Your task to perform on an android device: turn on showing notifications on the lock screen Image 0: 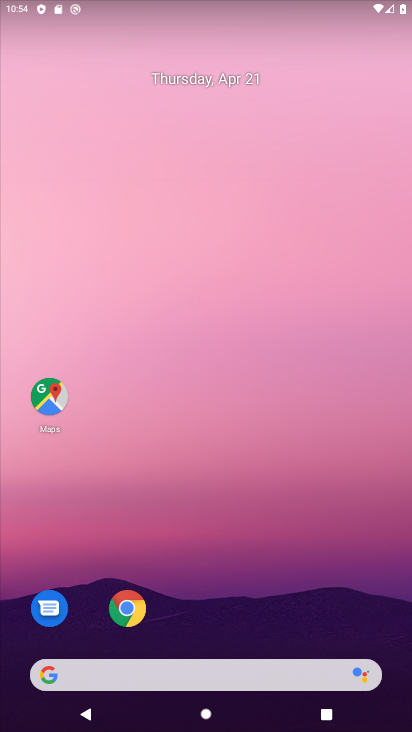
Step 0: drag from (260, 607) to (275, 239)
Your task to perform on an android device: turn on showing notifications on the lock screen Image 1: 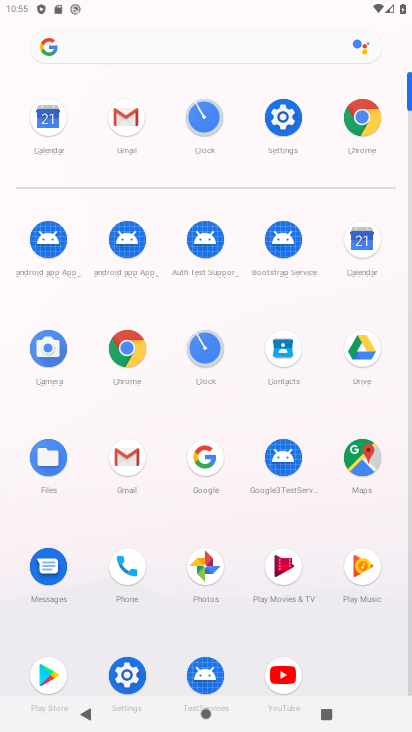
Step 1: click (295, 114)
Your task to perform on an android device: turn on showing notifications on the lock screen Image 2: 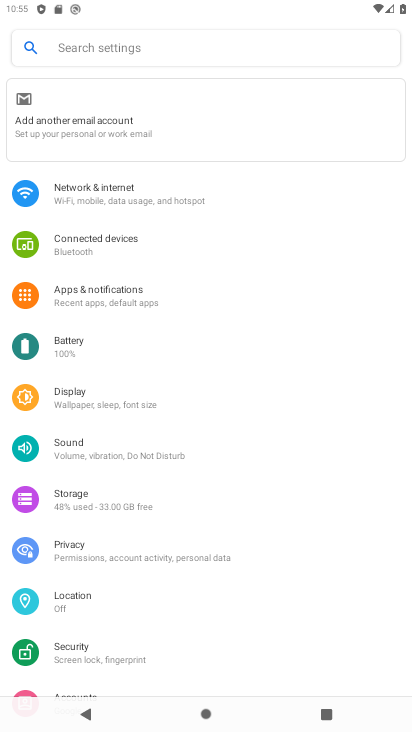
Step 2: click (99, 298)
Your task to perform on an android device: turn on showing notifications on the lock screen Image 3: 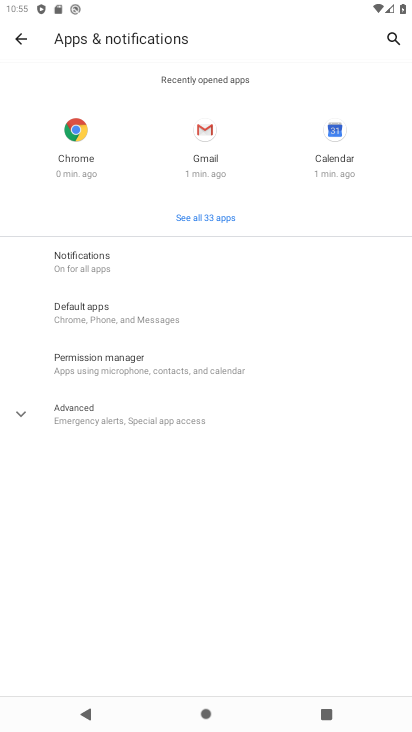
Step 3: click (82, 265)
Your task to perform on an android device: turn on showing notifications on the lock screen Image 4: 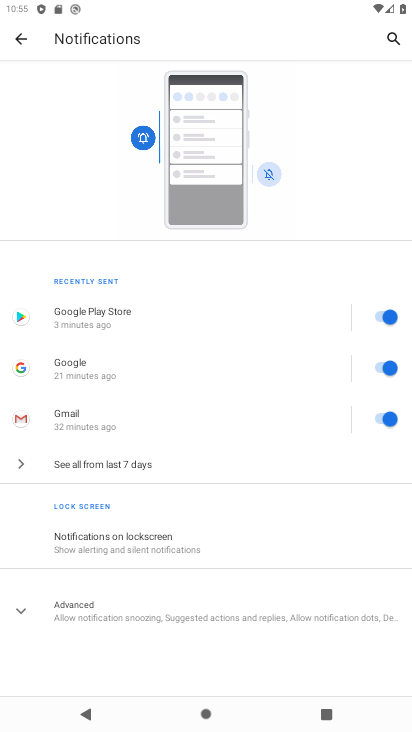
Step 4: click (145, 542)
Your task to perform on an android device: turn on showing notifications on the lock screen Image 5: 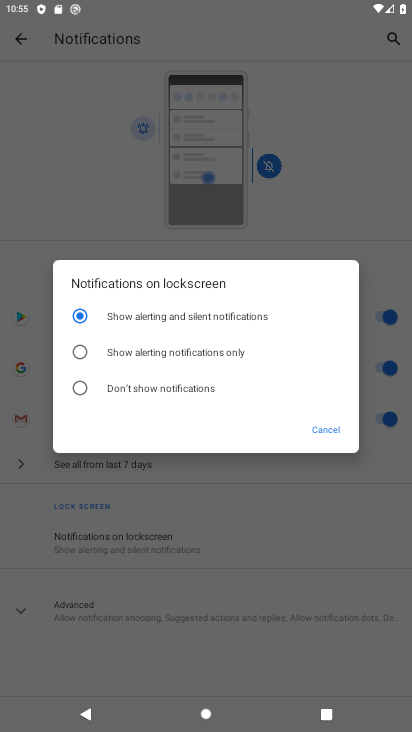
Step 5: task complete